Your task to perform on an android device: open chrome privacy settings Image 0: 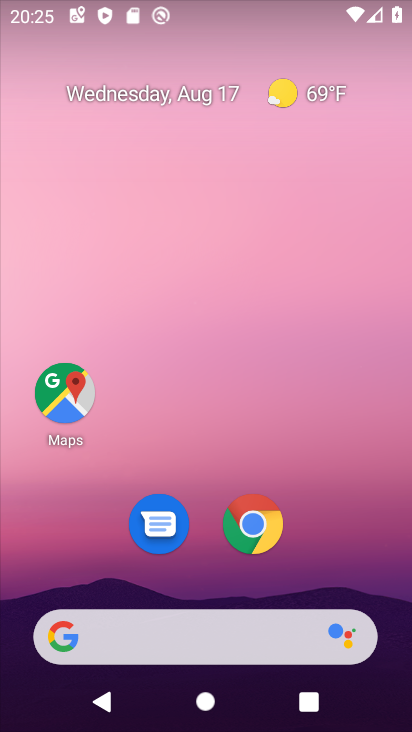
Step 0: click (250, 518)
Your task to perform on an android device: open chrome privacy settings Image 1: 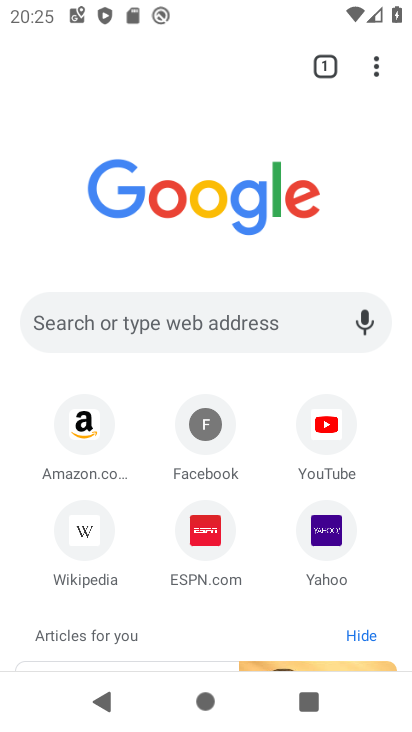
Step 1: click (376, 70)
Your task to perform on an android device: open chrome privacy settings Image 2: 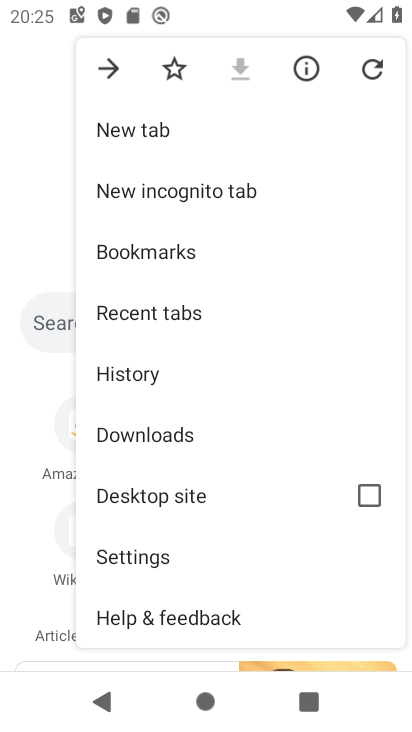
Step 2: click (165, 552)
Your task to perform on an android device: open chrome privacy settings Image 3: 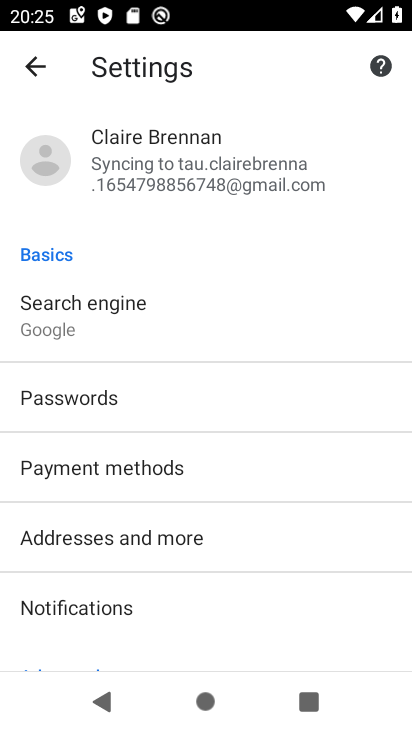
Step 3: drag from (247, 463) to (297, 157)
Your task to perform on an android device: open chrome privacy settings Image 4: 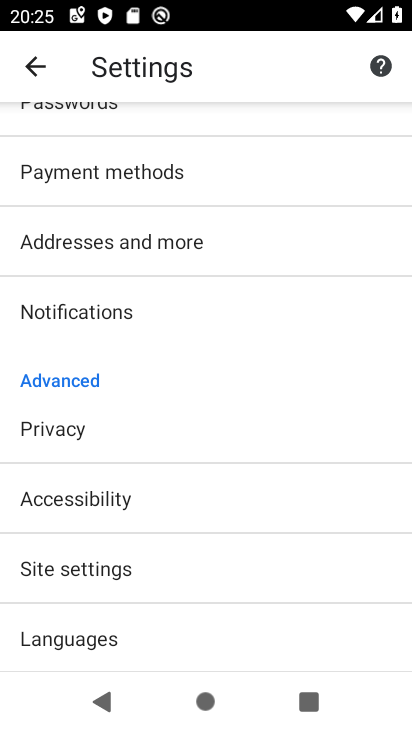
Step 4: click (191, 427)
Your task to perform on an android device: open chrome privacy settings Image 5: 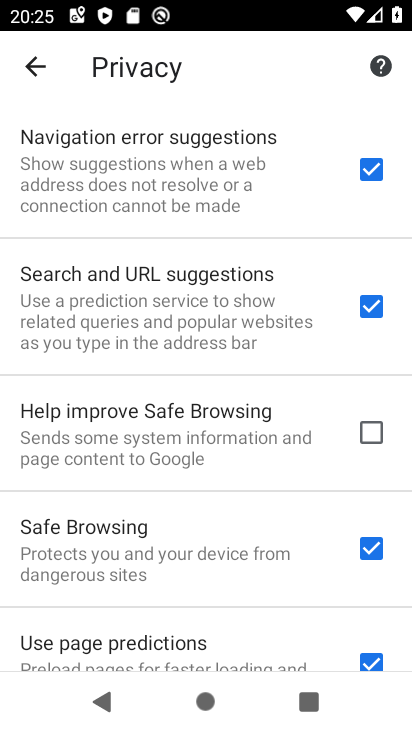
Step 5: task complete